Your task to perform on an android device: change timer sound Image 0: 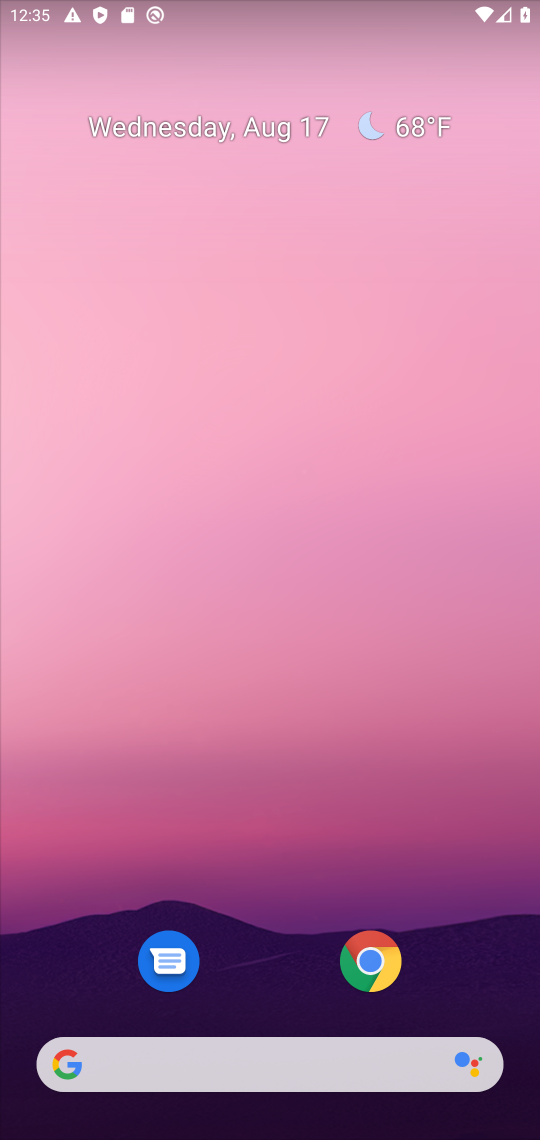
Step 0: drag from (317, 787) to (312, 361)
Your task to perform on an android device: change timer sound Image 1: 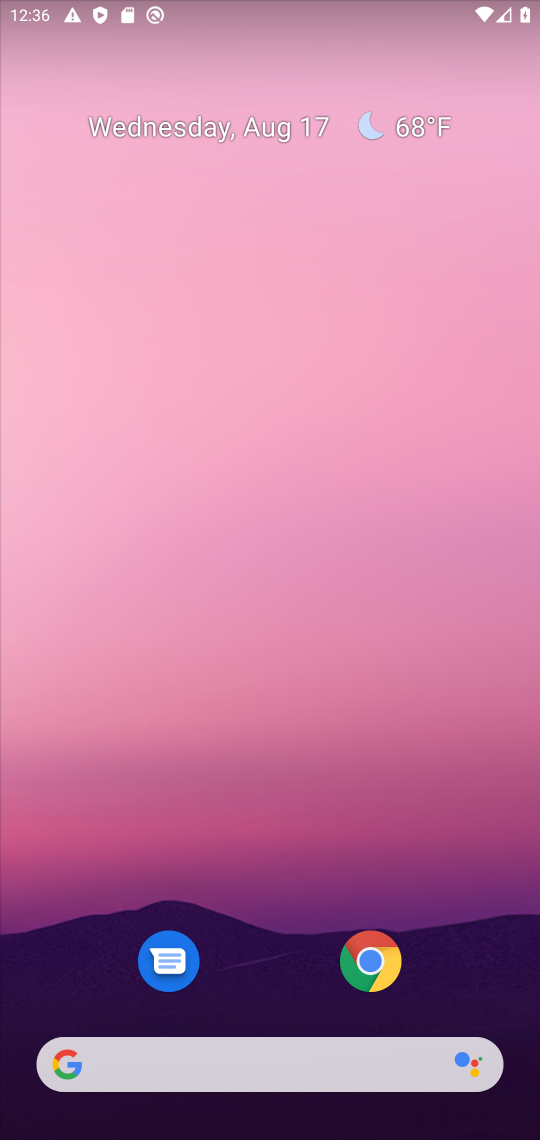
Step 1: drag from (194, 1051) to (262, 187)
Your task to perform on an android device: change timer sound Image 2: 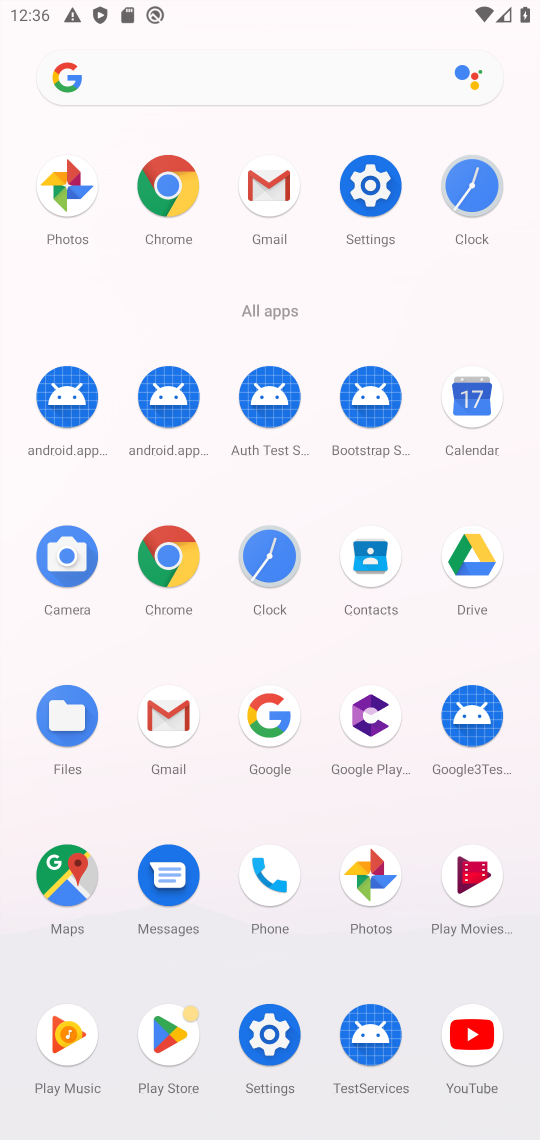
Step 2: click (263, 578)
Your task to perform on an android device: change timer sound Image 3: 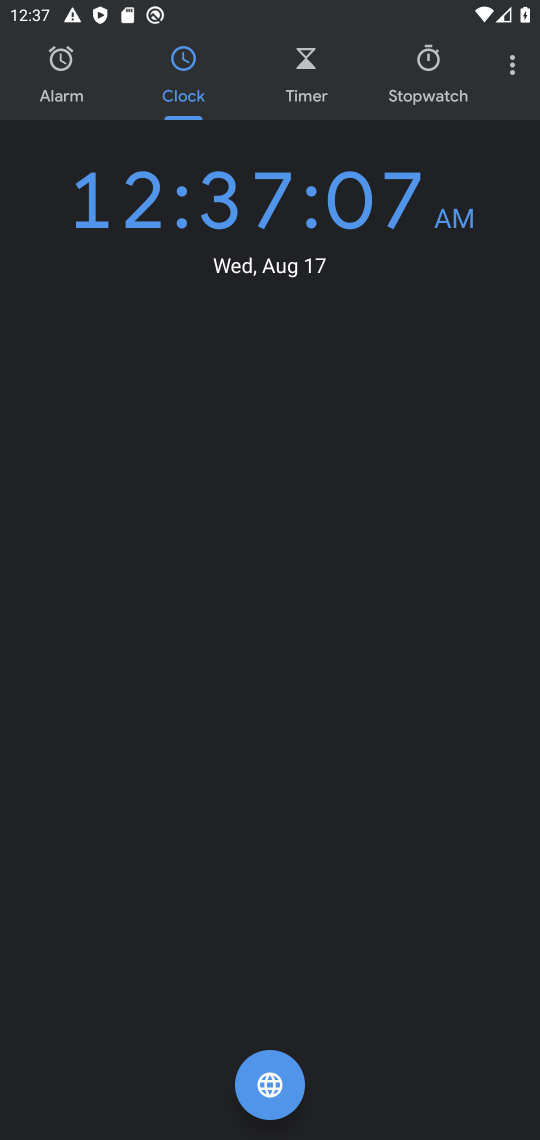
Step 3: click (528, 77)
Your task to perform on an android device: change timer sound Image 4: 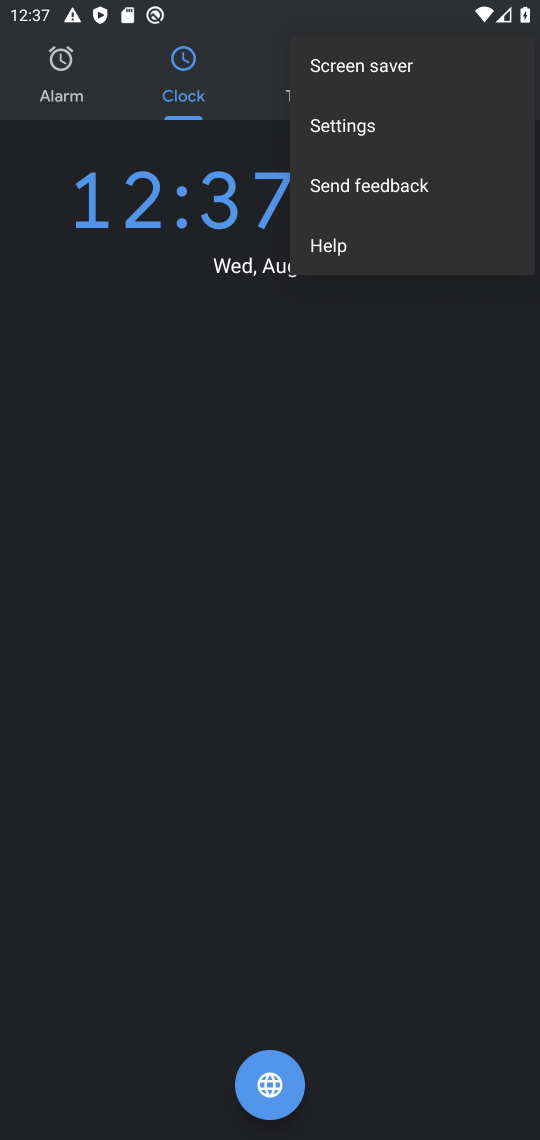
Step 4: click (346, 142)
Your task to perform on an android device: change timer sound Image 5: 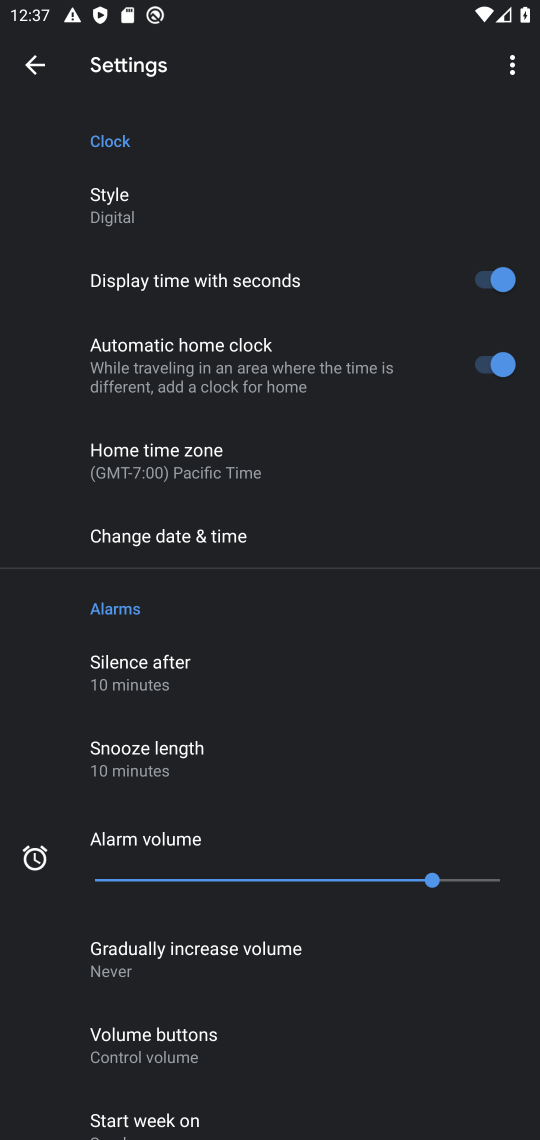
Step 5: drag from (202, 806) to (154, 514)
Your task to perform on an android device: change timer sound Image 6: 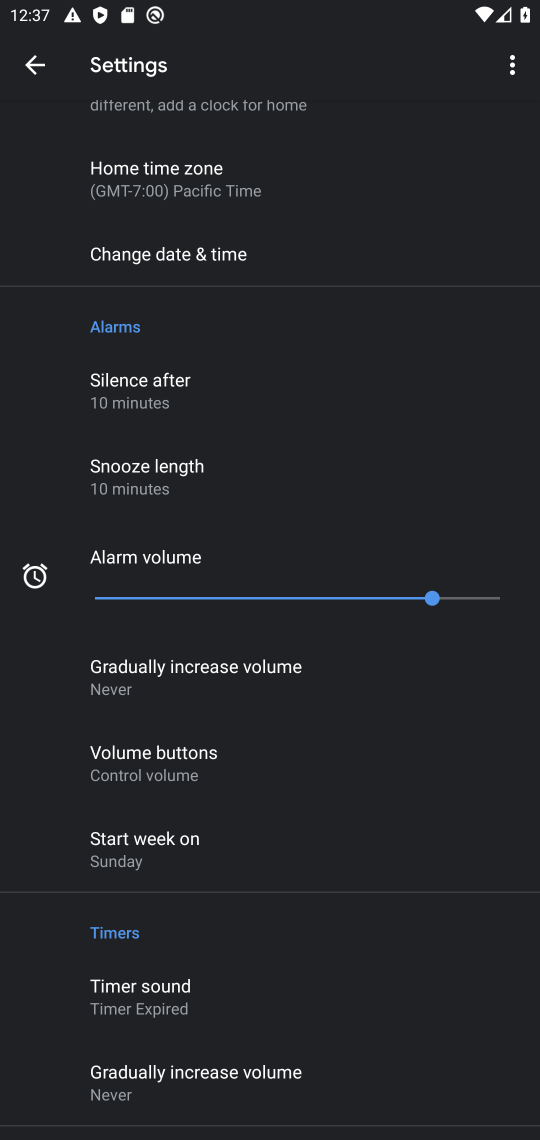
Step 6: drag from (252, 871) to (224, 455)
Your task to perform on an android device: change timer sound Image 7: 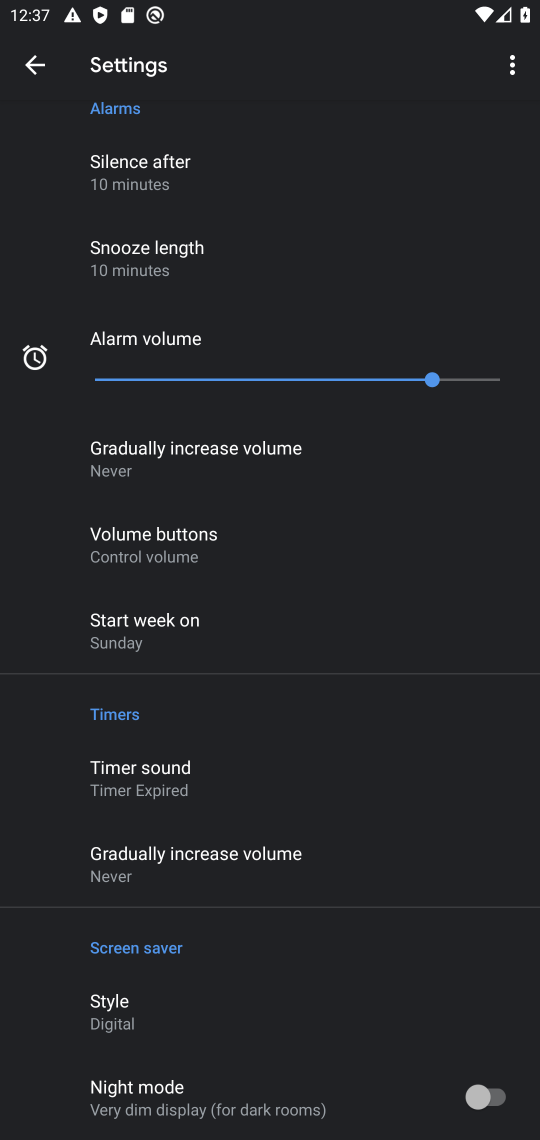
Step 7: click (197, 891)
Your task to perform on an android device: change timer sound Image 8: 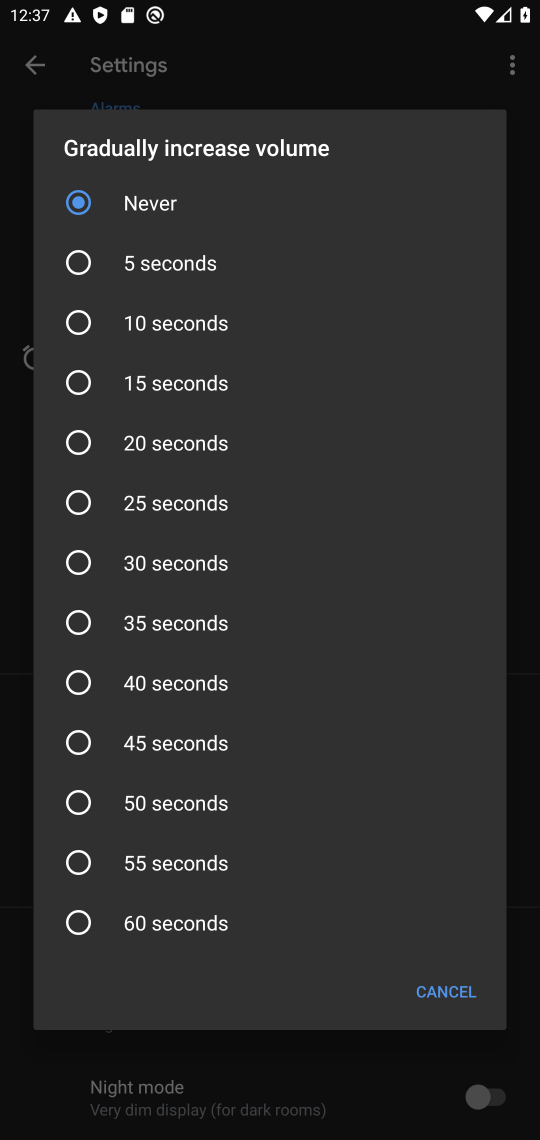
Step 8: click (124, 331)
Your task to perform on an android device: change timer sound Image 9: 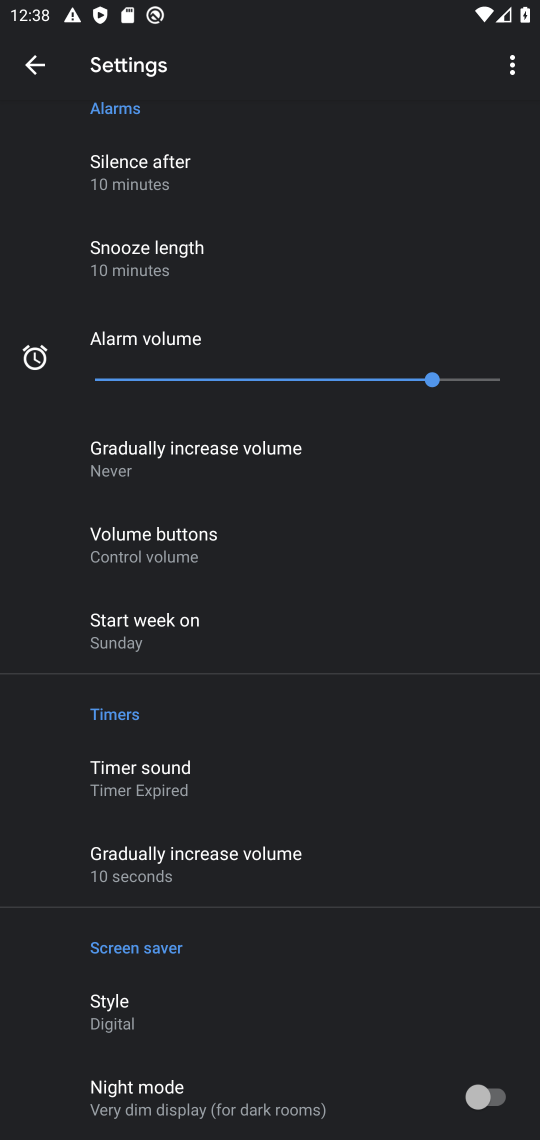
Step 9: task complete